Your task to perform on an android device: delete location history Image 0: 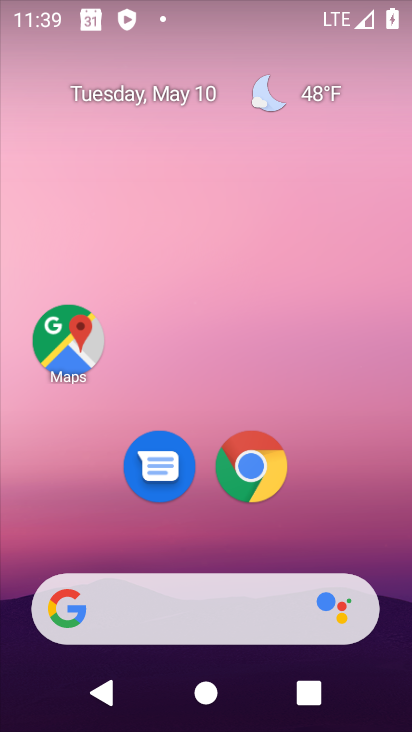
Step 0: drag from (159, 563) to (250, 41)
Your task to perform on an android device: delete location history Image 1: 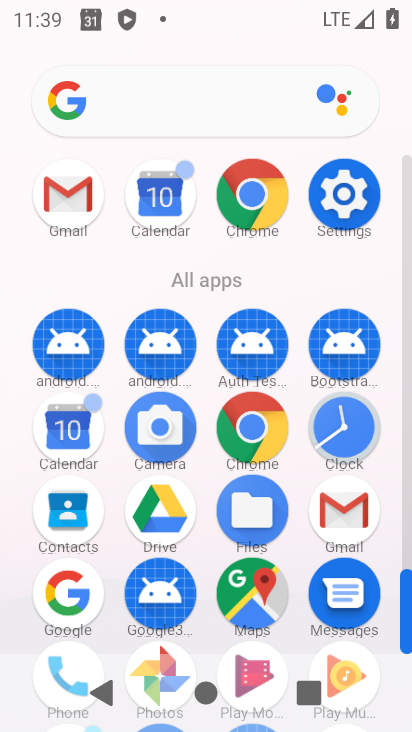
Step 1: click (265, 589)
Your task to perform on an android device: delete location history Image 2: 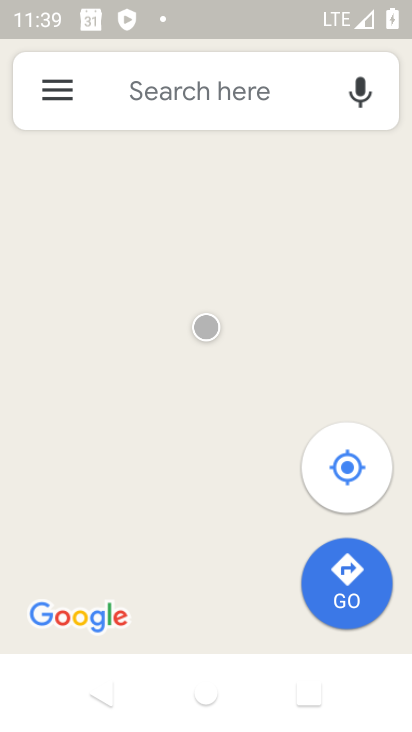
Step 2: click (50, 88)
Your task to perform on an android device: delete location history Image 3: 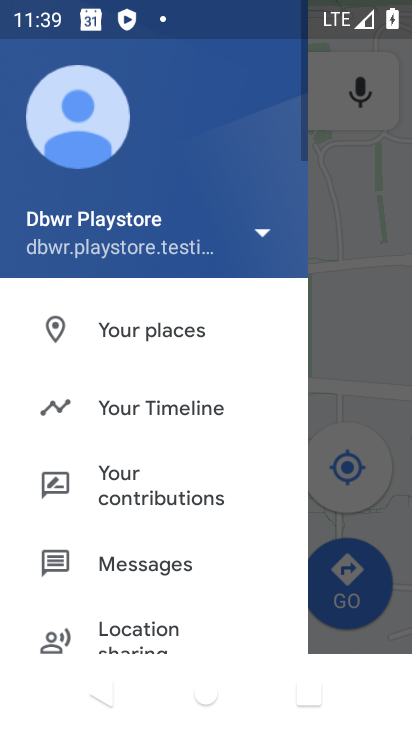
Step 3: click (167, 405)
Your task to perform on an android device: delete location history Image 4: 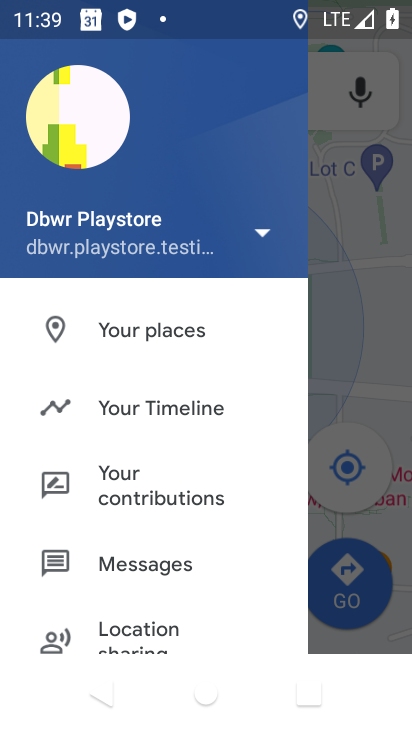
Step 4: click (124, 402)
Your task to perform on an android device: delete location history Image 5: 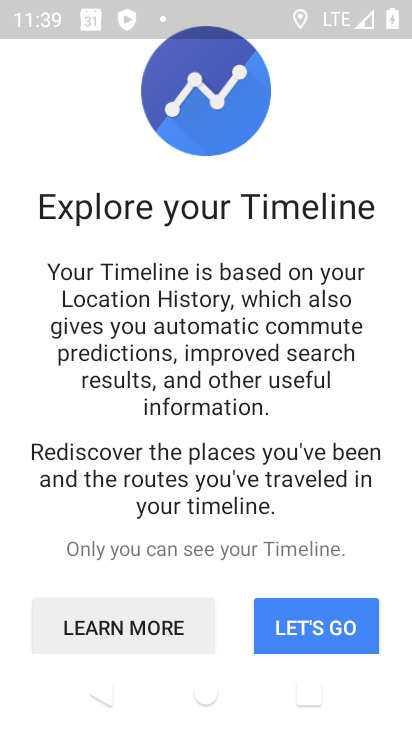
Step 5: click (301, 636)
Your task to perform on an android device: delete location history Image 6: 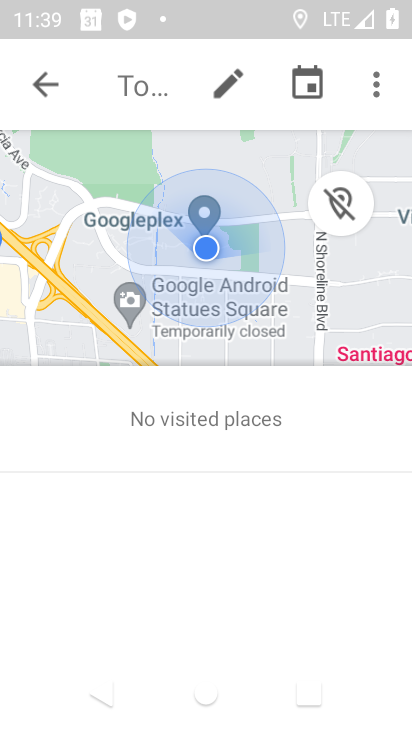
Step 6: click (382, 87)
Your task to perform on an android device: delete location history Image 7: 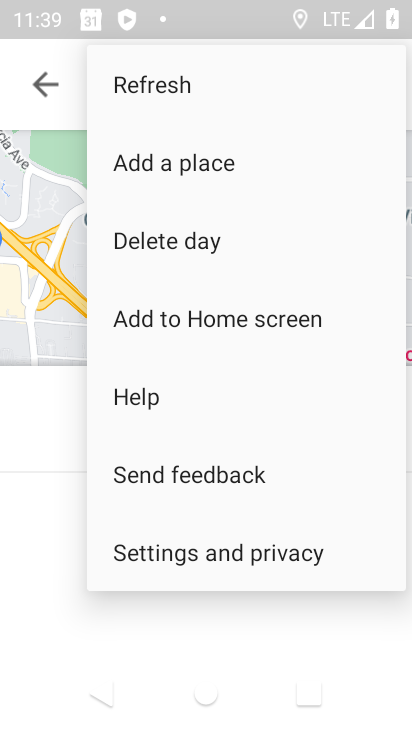
Step 7: click (210, 556)
Your task to perform on an android device: delete location history Image 8: 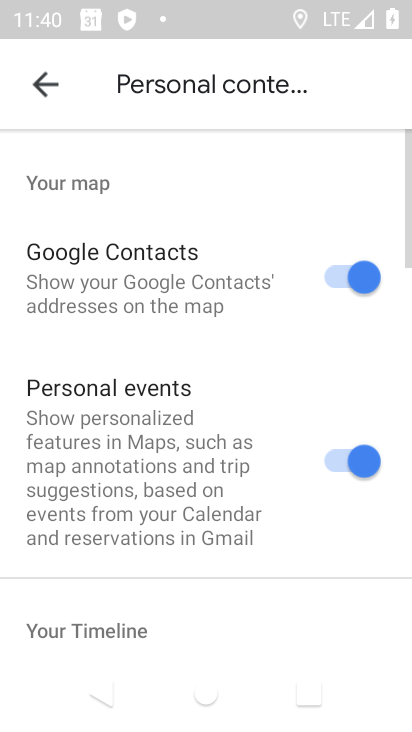
Step 8: drag from (145, 569) to (249, 107)
Your task to perform on an android device: delete location history Image 9: 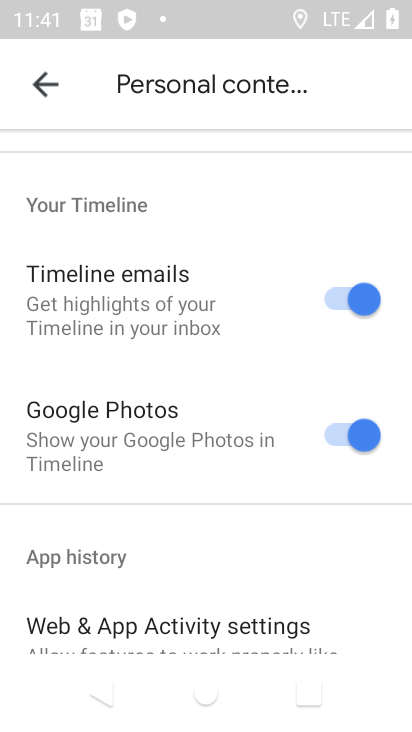
Step 9: drag from (211, 613) to (308, 45)
Your task to perform on an android device: delete location history Image 10: 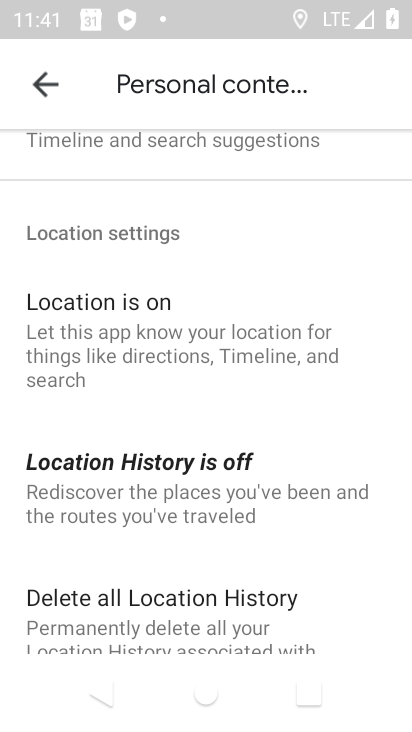
Step 10: click (146, 632)
Your task to perform on an android device: delete location history Image 11: 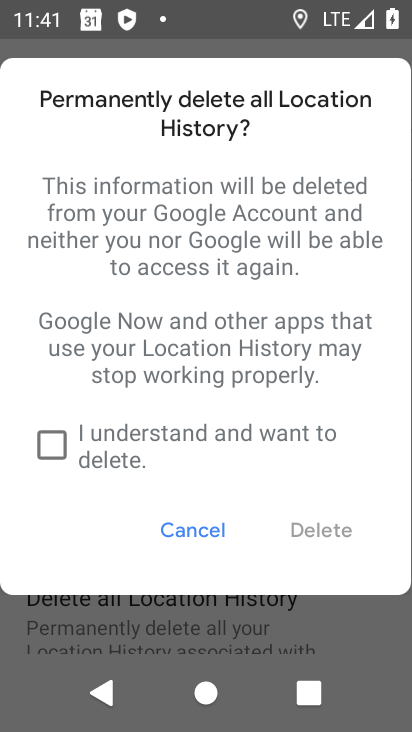
Step 11: click (70, 442)
Your task to perform on an android device: delete location history Image 12: 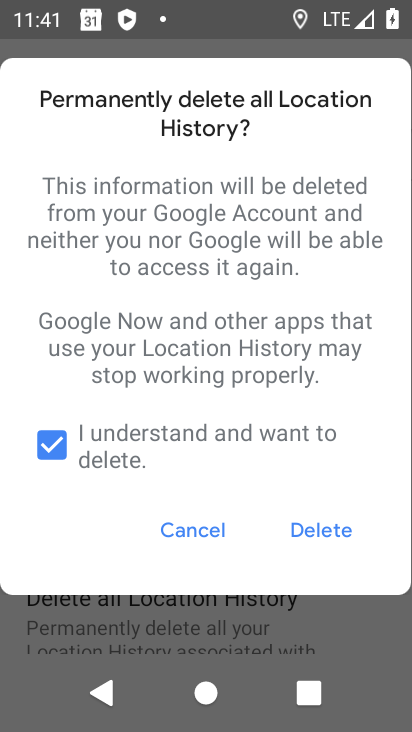
Step 12: click (323, 533)
Your task to perform on an android device: delete location history Image 13: 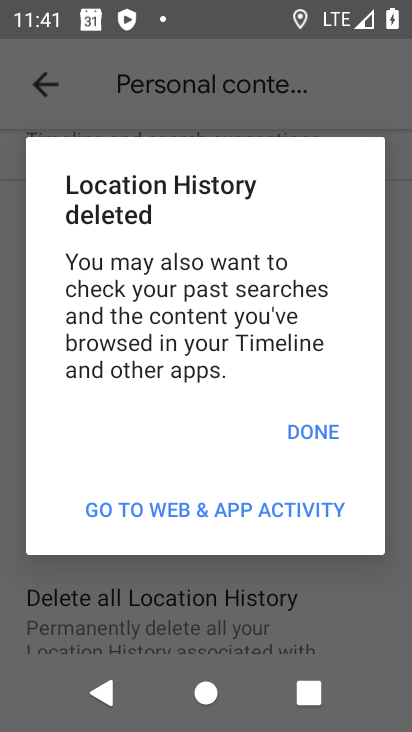
Step 13: click (322, 418)
Your task to perform on an android device: delete location history Image 14: 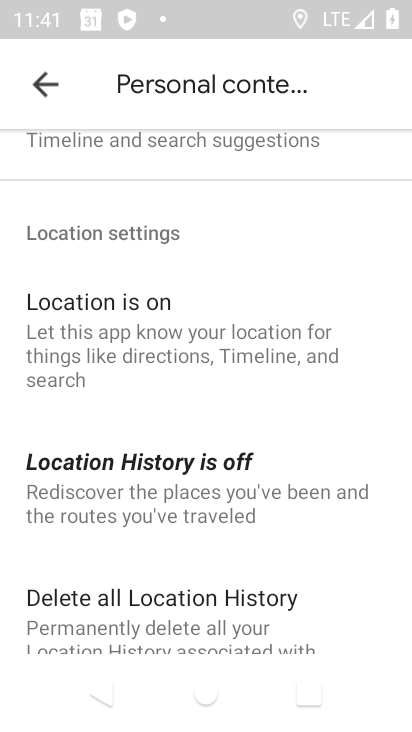
Step 14: task complete